Your task to perform on an android device: Search for Mexican restaurants on Maps Image 0: 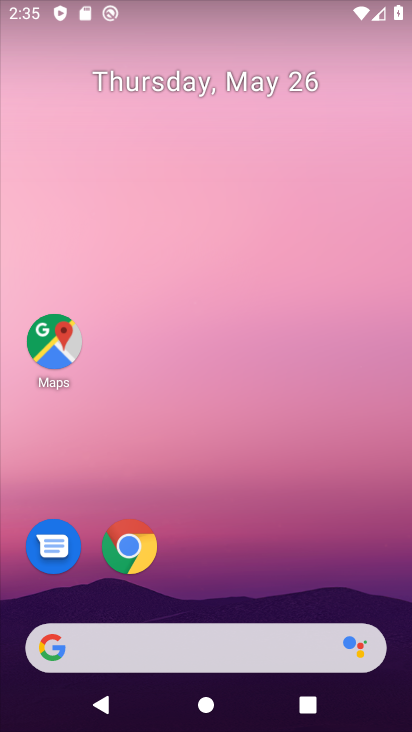
Step 0: click (51, 336)
Your task to perform on an android device: Search for Mexican restaurants on Maps Image 1: 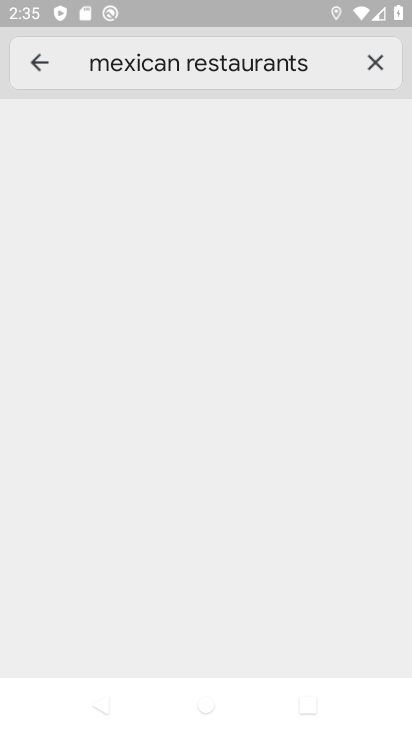
Step 1: click (323, 62)
Your task to perform on an android device: Search for Mexican restaurants on Maps Image 2: 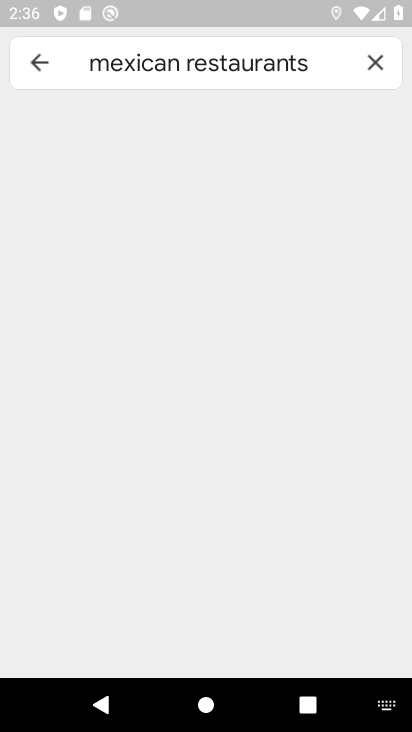
Step 2: task complete